Your task to perform on an android device: turn on location history Image 0: 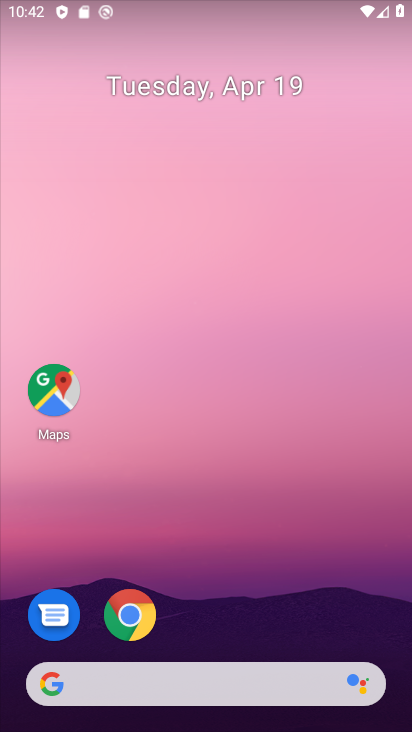
Step 0: drag from (215, 657) to (218, 388)
Your task to perform on an android device: turn on location history Image 1: 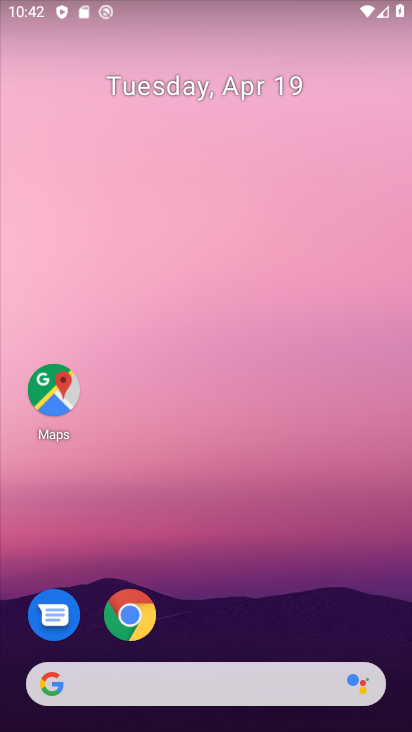
Step 1: drag from (238, 661) to (238, 253)
Your task to perform on an android device: turn on location history Image 2: 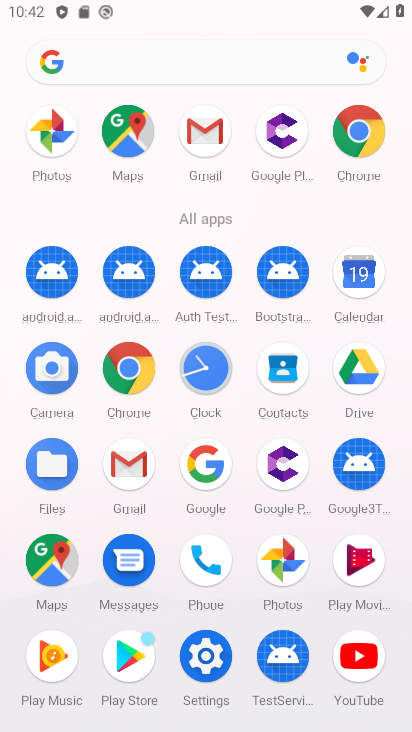
Step 2: click (206, 659)
Your task to perform on an android device: turn on location history Image 3: 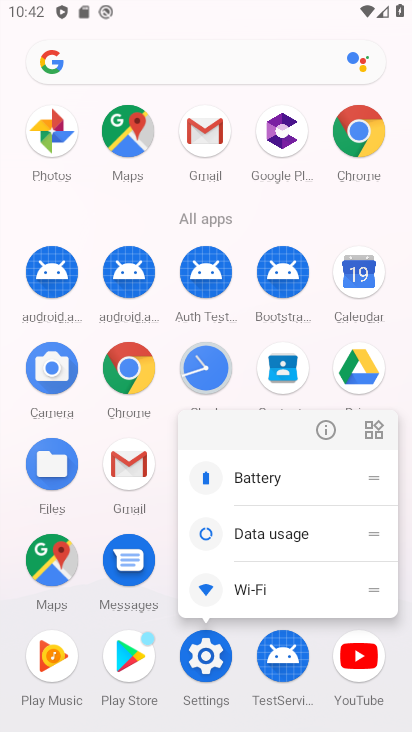
Step 3: click (206, 659)
Your task to perform on an android device: turn on location history Image 4: 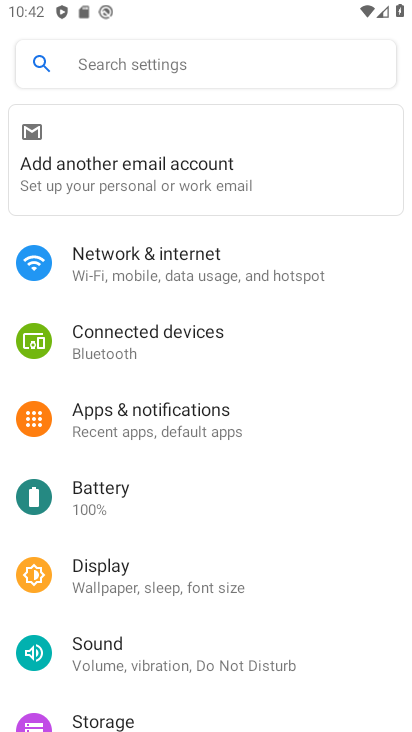
Step 4: drag from (187, 637) to (183, 294)
Your task to perform on an android device: turn on location history Image 5: 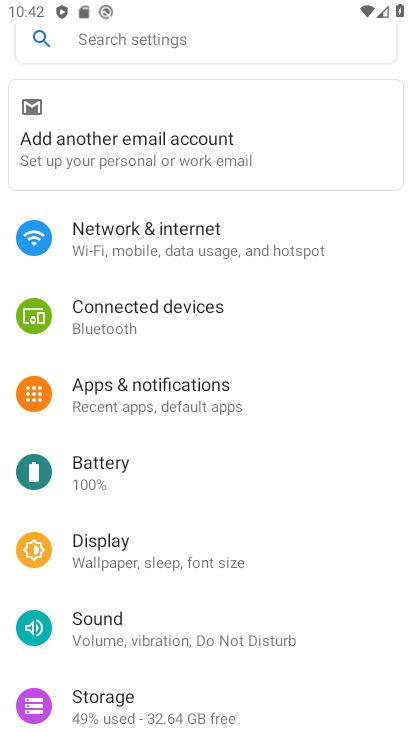
Step 5: drag from (191, 667) to (211, 287)
Your task to perform on an android device: turn on location history Image 6: 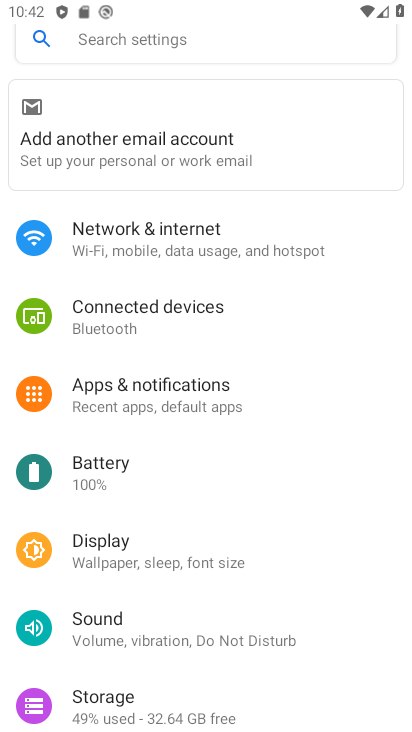
Step 6: drag from (184, 669) to (217, 285)
Your task to perform on an android device: turn on location history Image 7: 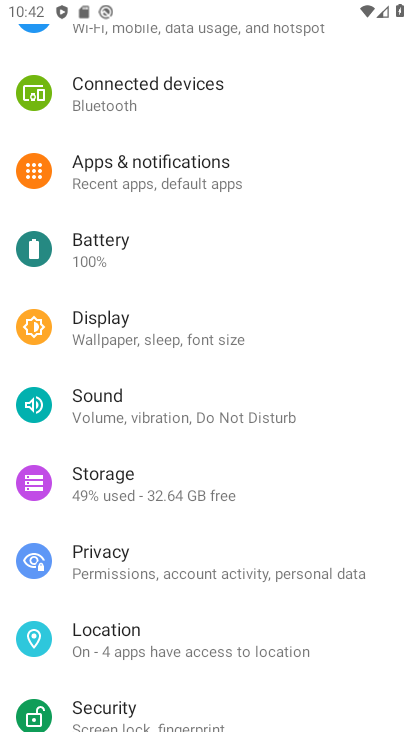
Step 7: click (126, 642)
Your task to perform on an android device: turn on location history Image 8: 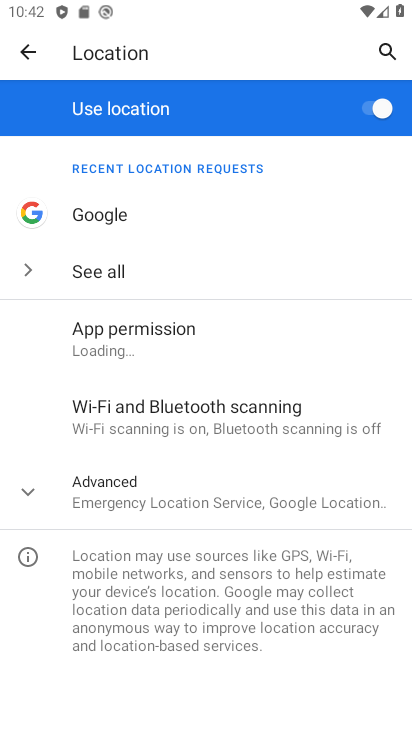
Step 8: click (126, 325)
Your task to perform on an android device: turn on location history Image 9: 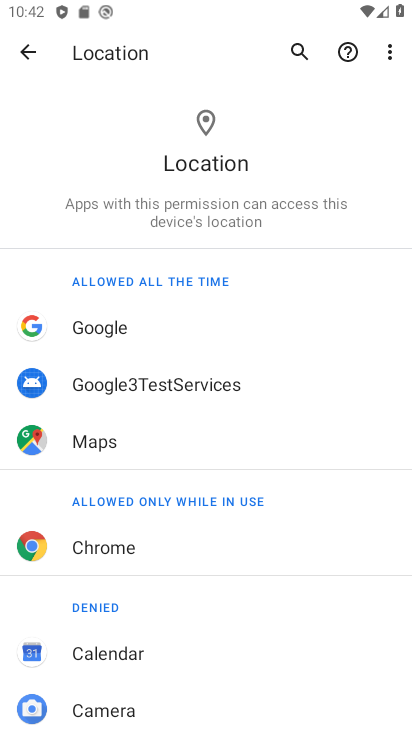
Step 9: click (36, 49)
Your task to perform on an android device: turn on location history Image 10: 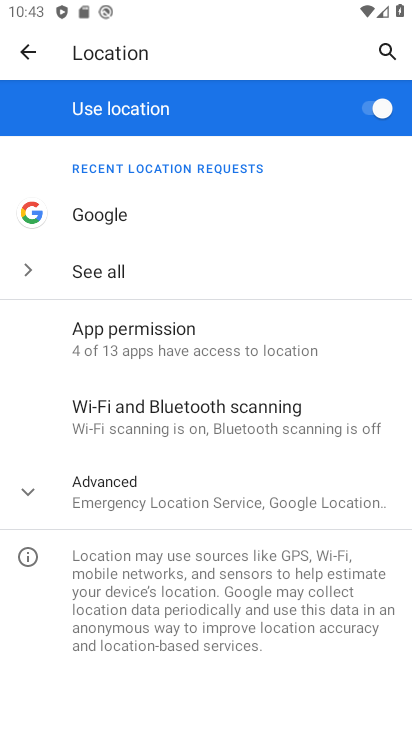
Step 10: click (171, 502)
Your task to perform on an android device: turn on location history Image 11: 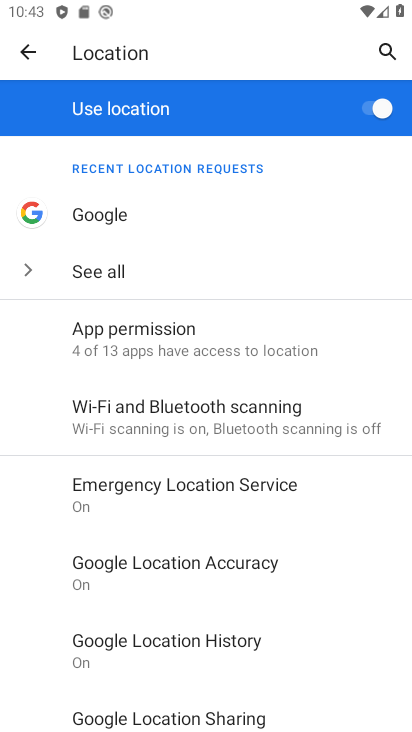
Step 11: task complete